Your task to perform on an android device: uninstall "Google Docs" Image 0: 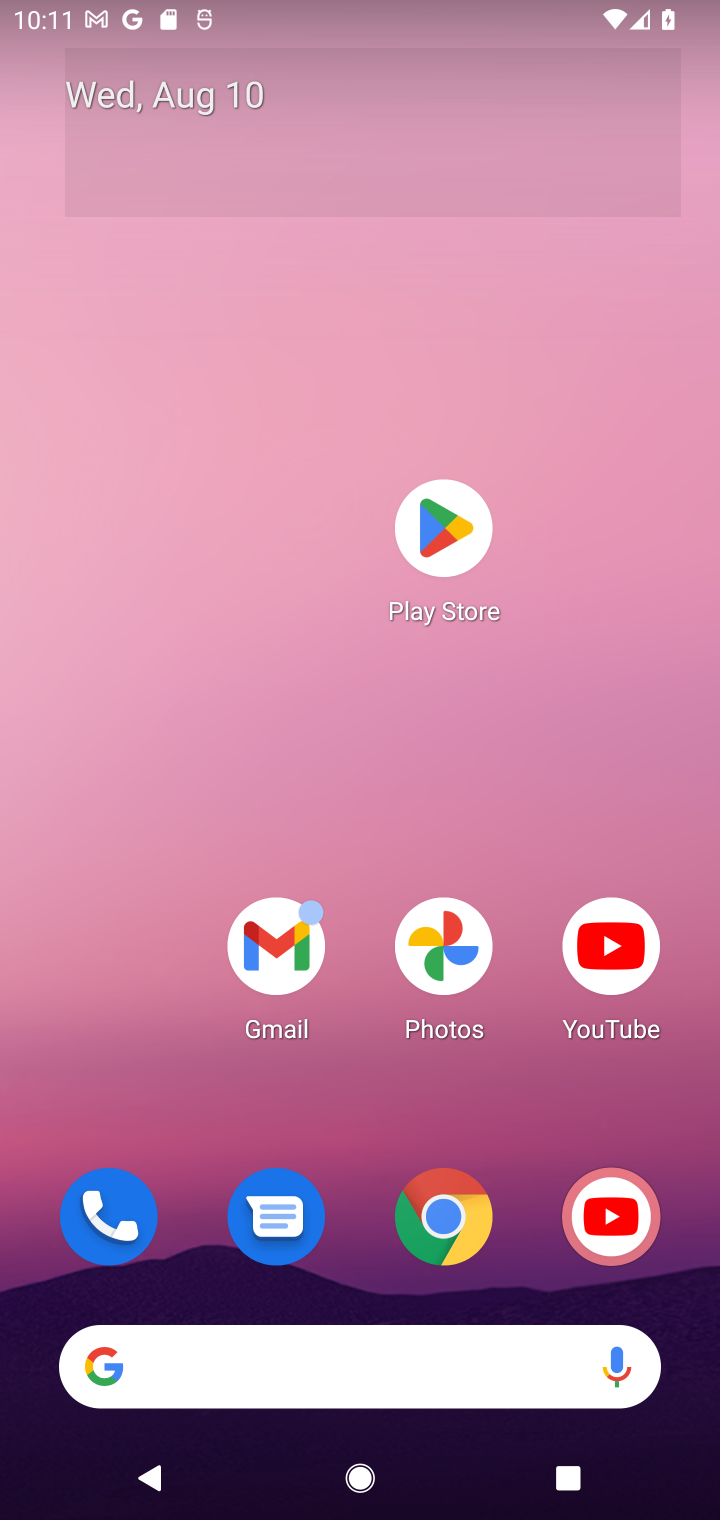
Step 0: click (436, 516)
Your task to perform on an android device: uninstall "Google Docs" Image 1: 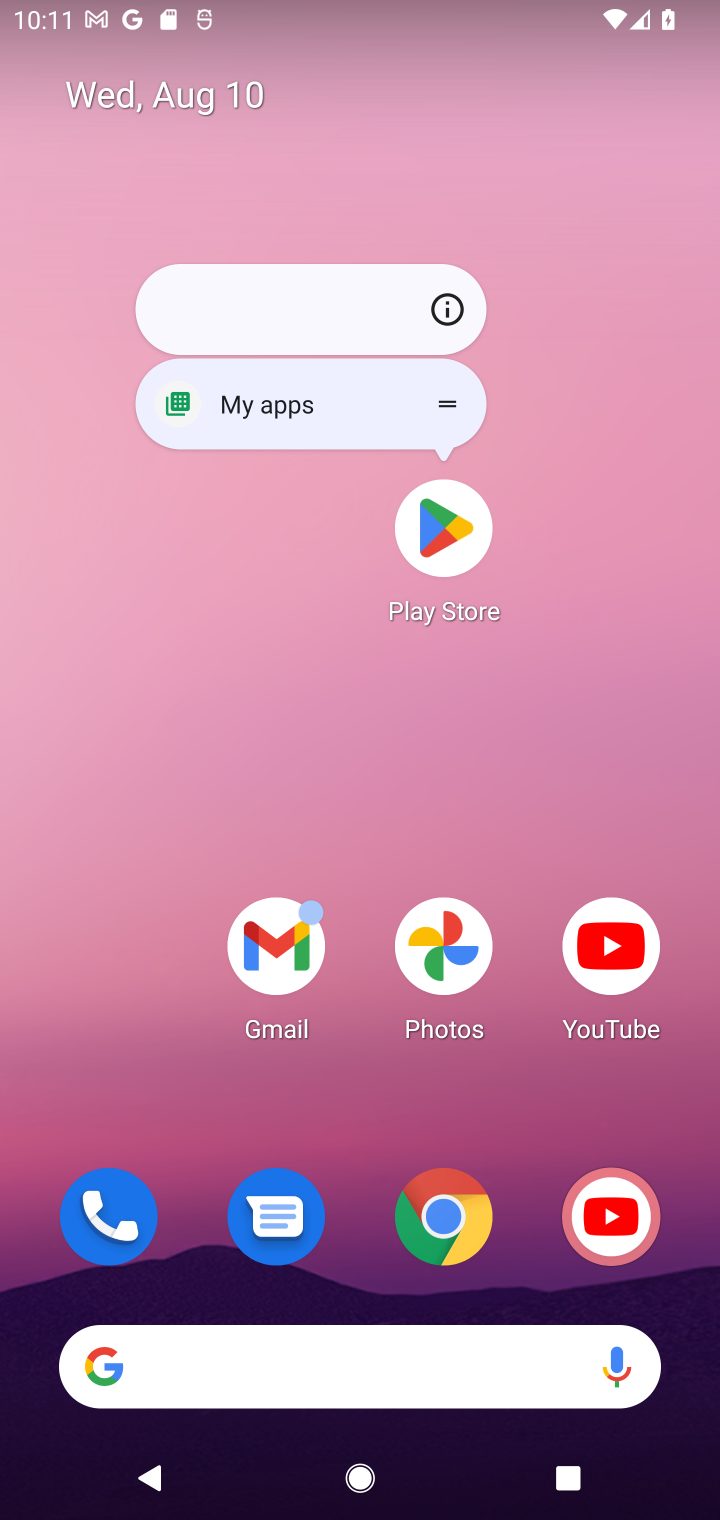
Step 1: click (436, 516)
Your task to perform on an android device: uninstall "Google Docs" Image 2: 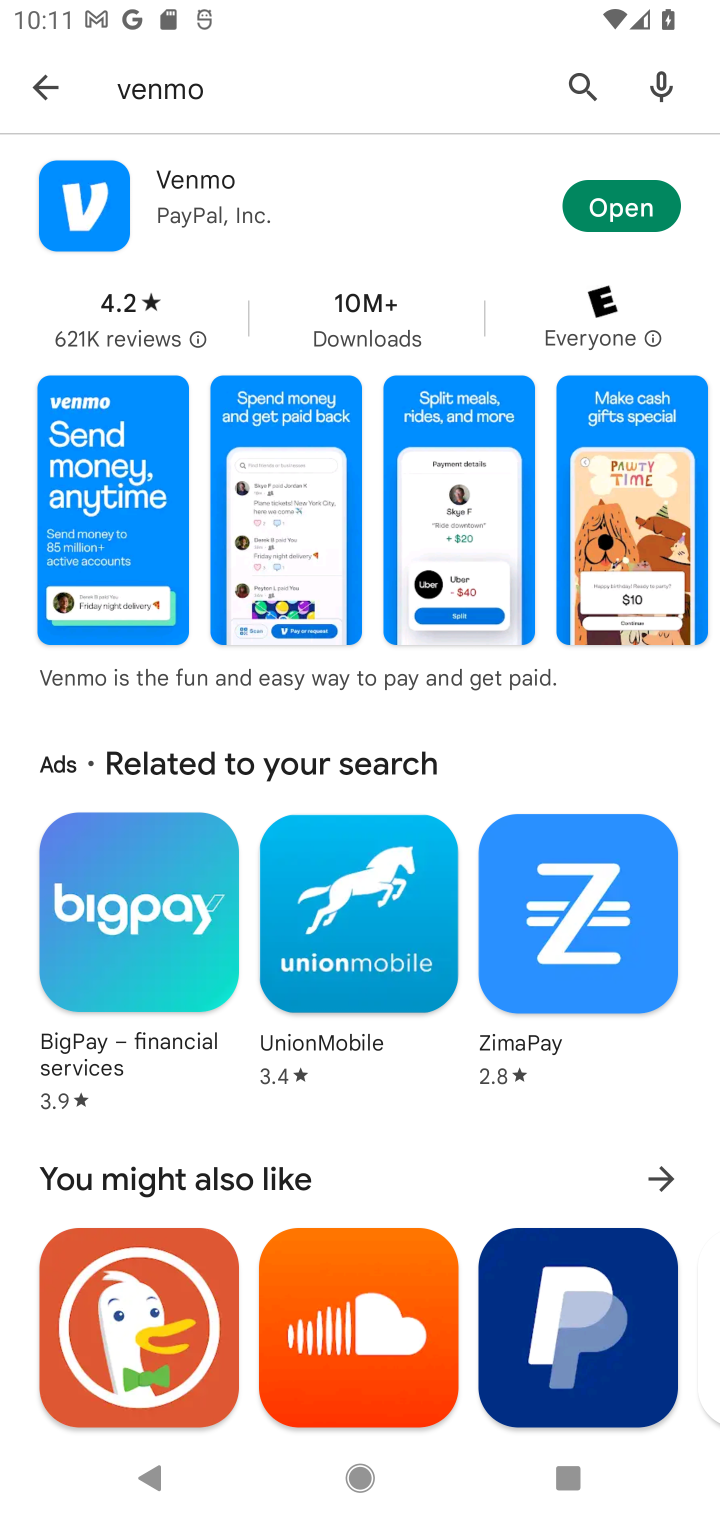
Step 2: click (577, 81)
Your task to perform on an android device: uninstall "Google Docs" Image 3: 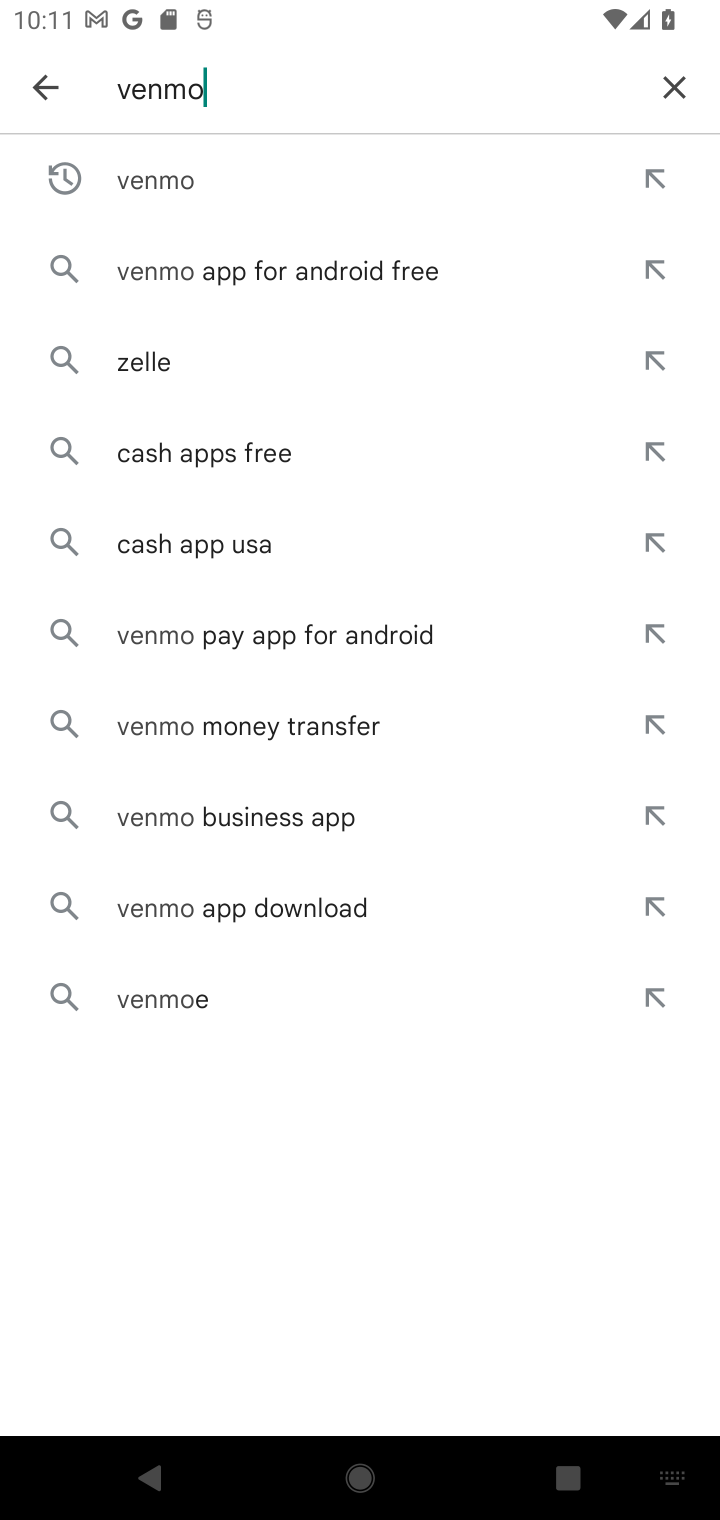
Step 3: type "Google Docs"
Your task to perform on an android device: uninstall "Google Docs" Image 4: 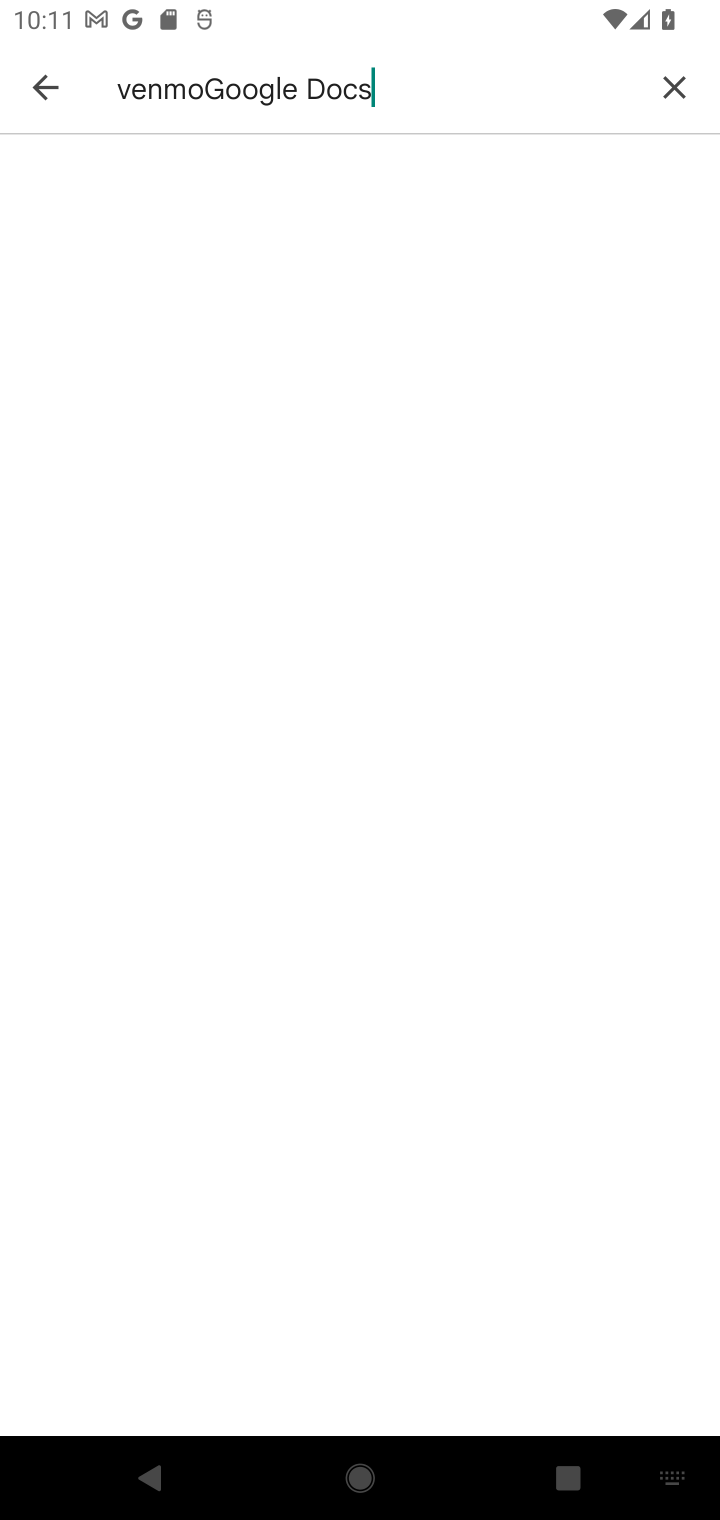
Step 4: click (664, 80)
Your task to perform on an android device: uninstall "Google Docs" Image 5: 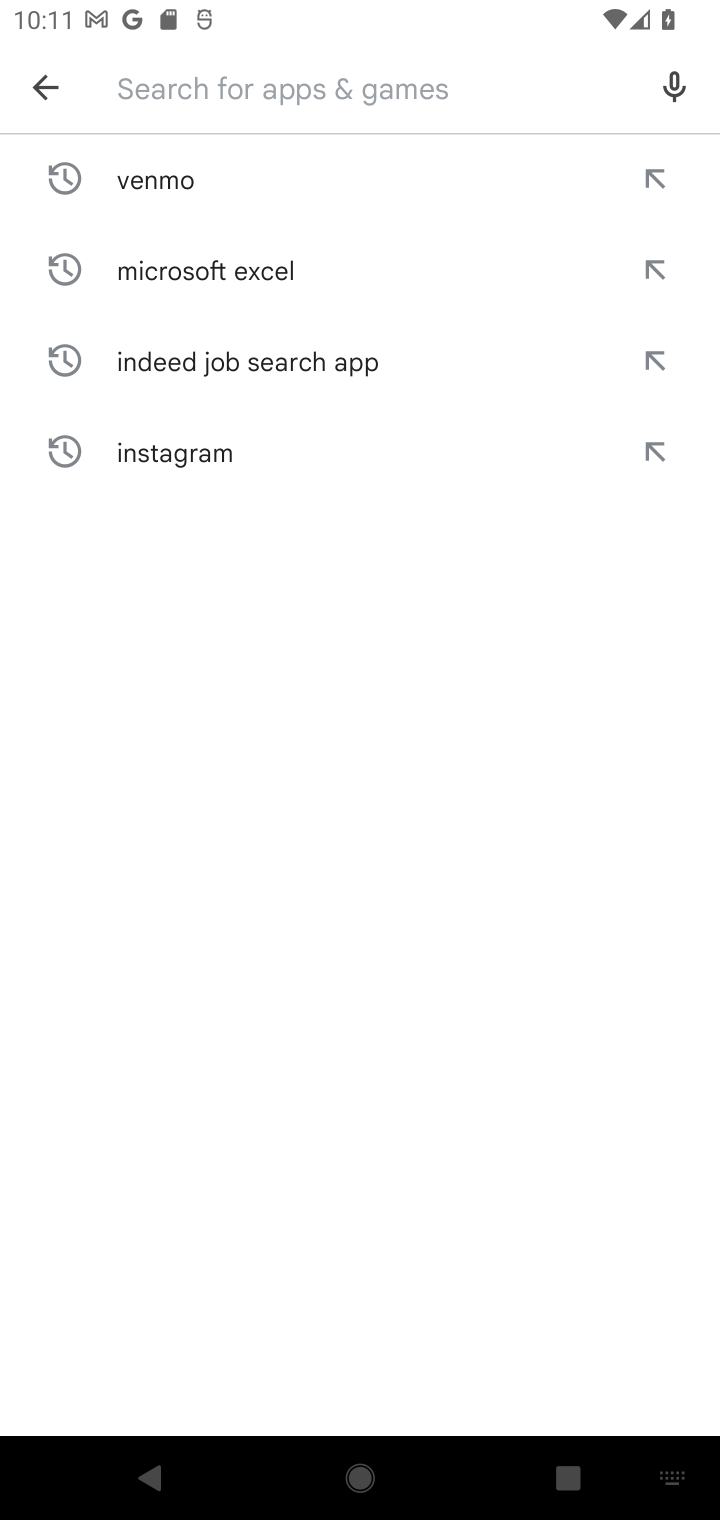
Step 5: type "Google Docs"
Your task to perform on an android device: uninstall "Google Docs" Image 6: 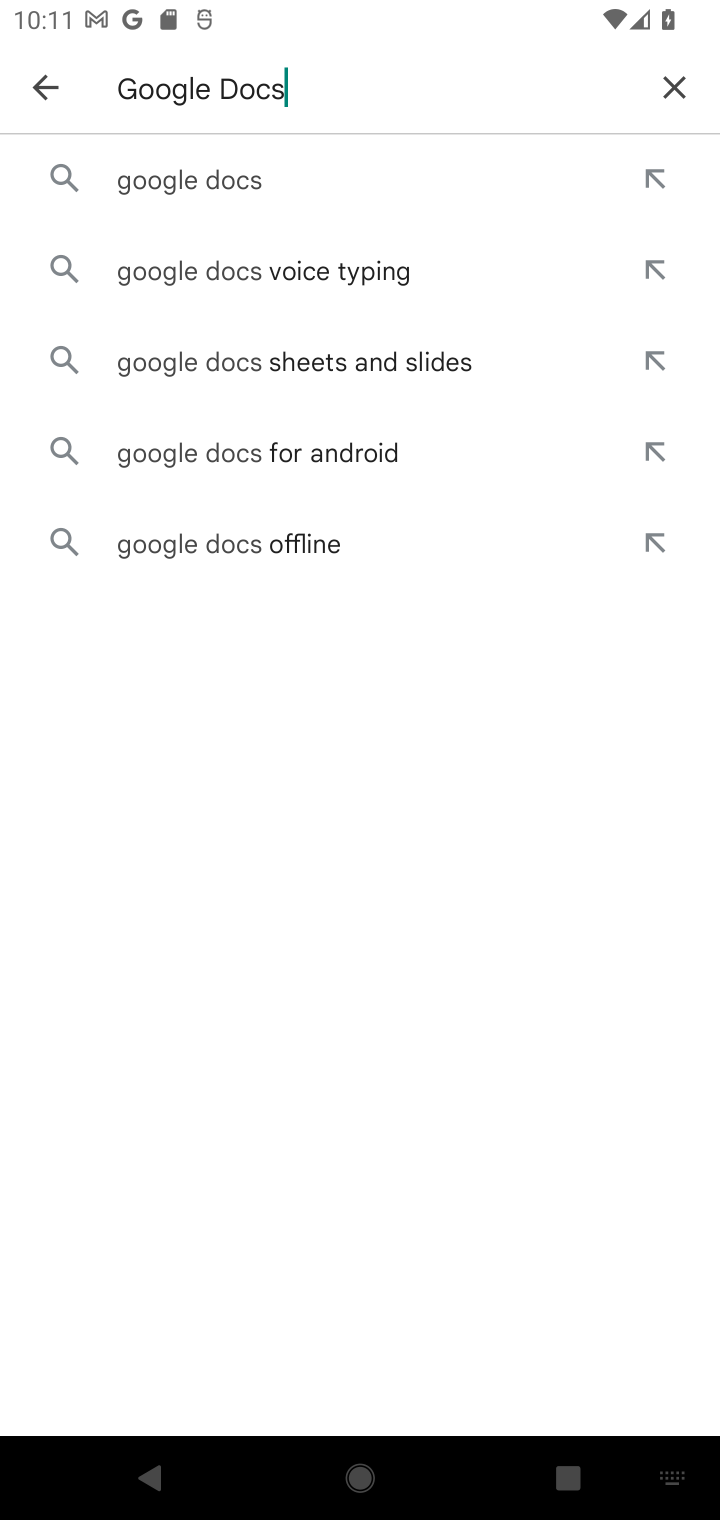
Step 6: click (214, 179)
Your task to perform on an android device: uninstall "Google Docs" Image 7: 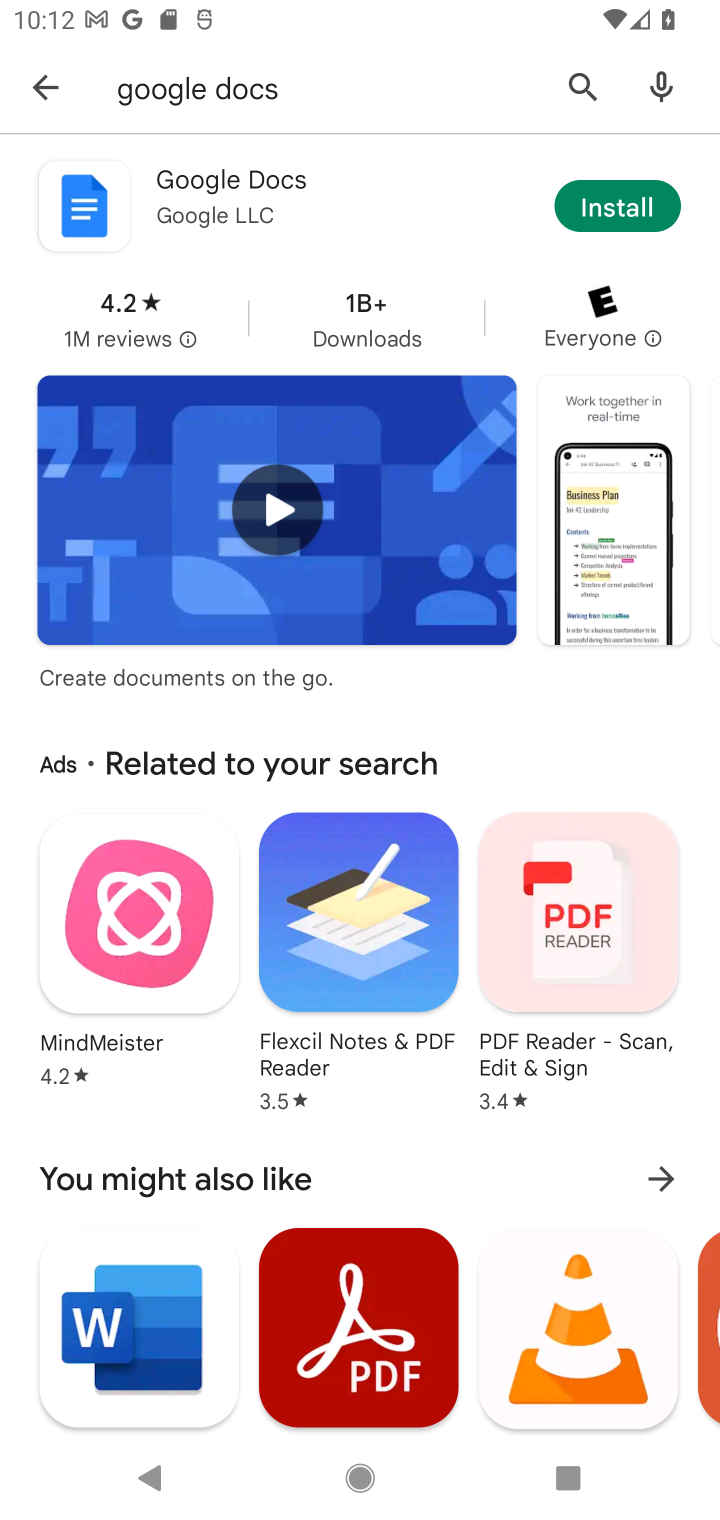
Step 7: task complete